Your task to perform on an android device: change your default location settings in chrome Image 0: 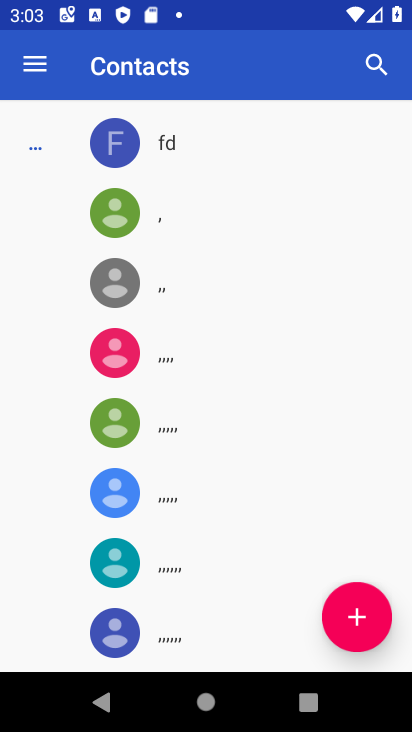
Step 0: press home button
Your task to perform on an android device: change your default location settings in chrome Image 1: 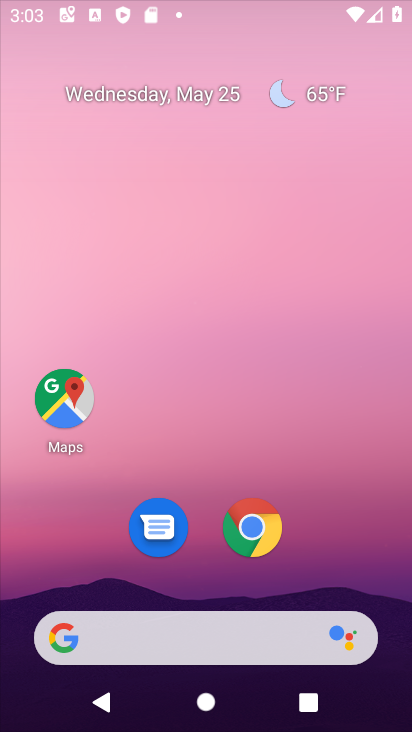
Step 1: drag from (320, 597) to (345, 15)
Your task to perform on an android device: change your default location settings in chrome Image 2: 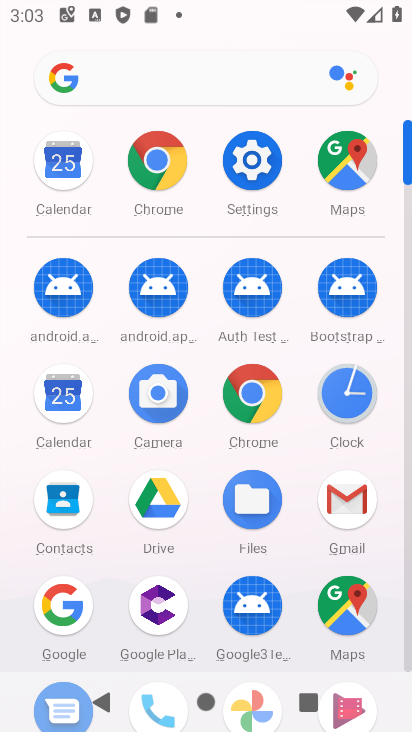
Step 2: click (239, 389)
Your task to perform on an android device: change your default location settings in chrome Image 3: 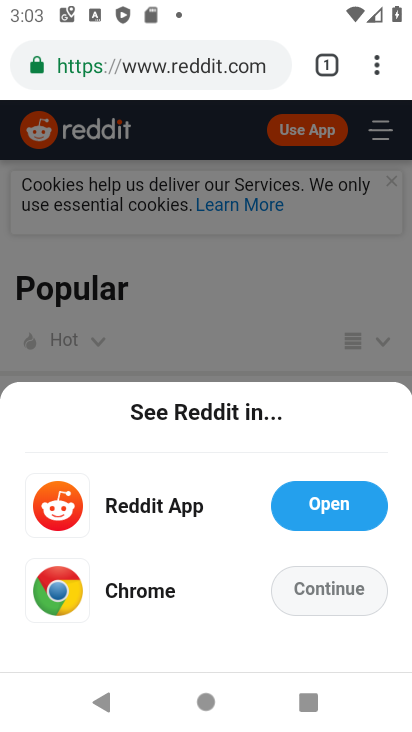
Step 3: click (375, 59)
Your task to perform on an android device: change your default location settings in chrome Image 4: 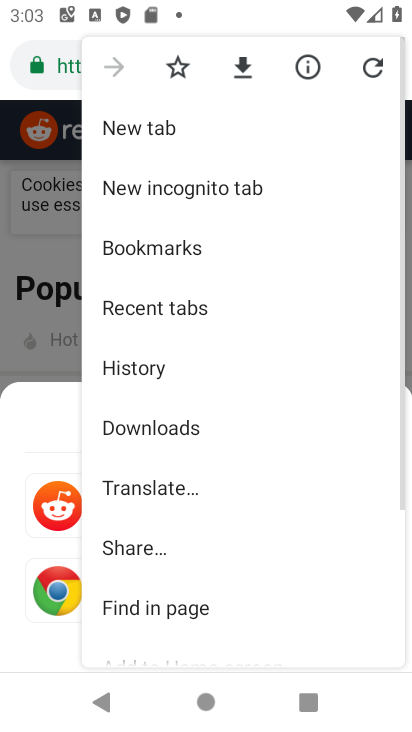
Step 4: drag from (169, 578) to (236, 159)
Your task to perform on an android device: change your default location settings in chrome Image 5: 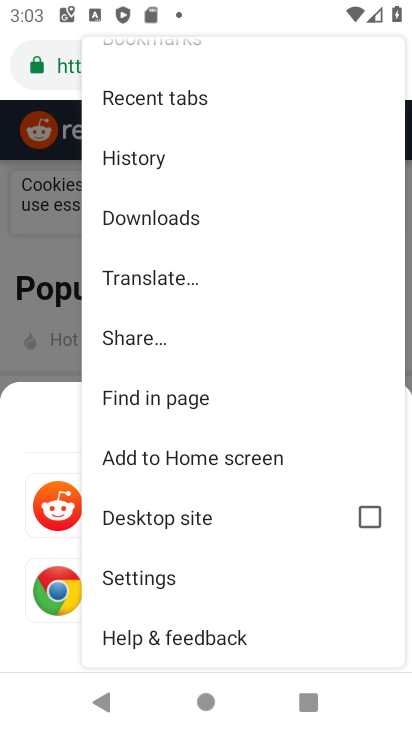
Step 5: click (257, 576)
Your task to perform on an android device: change your default location settings in chrome Image 6: 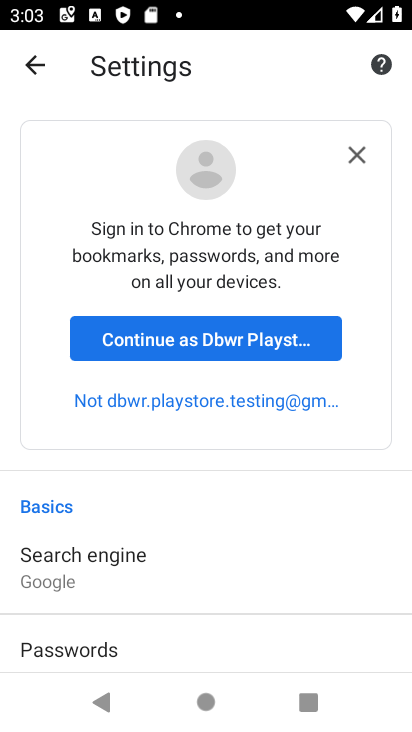
Step 6: drag from (186, 646) to (201, 43)
Your task to perform on an android device: change your default location settings in chrome Image 7: 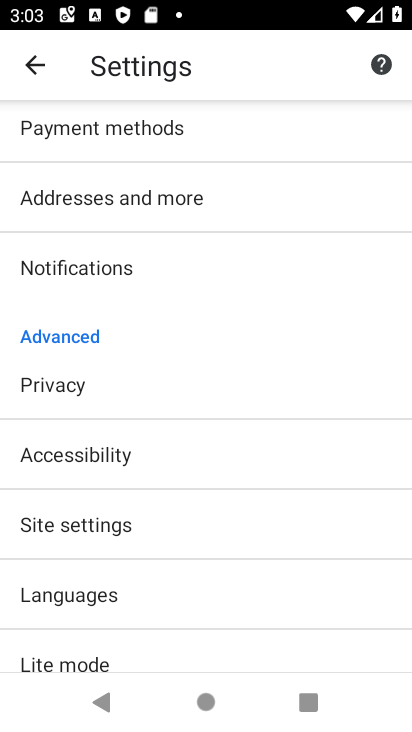
Step 7: drag from (125, 611) to (135, 488)
Your task to perform on an android device: change your default location settings in chrome Image 8: 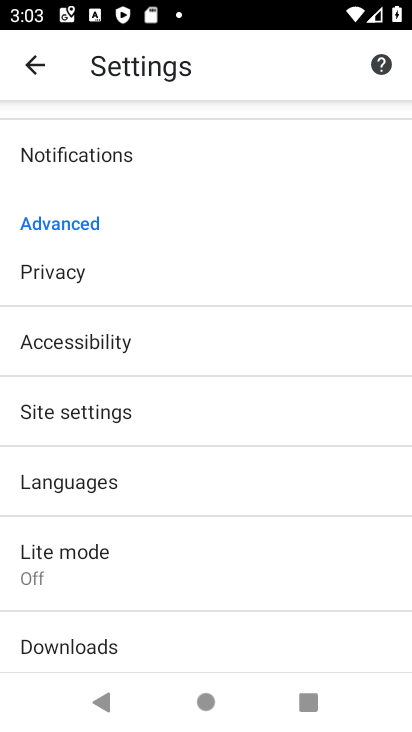
Step 8: click (133, 409)
Your task to perform on an android device: change your default location settings in chrome Image 9: 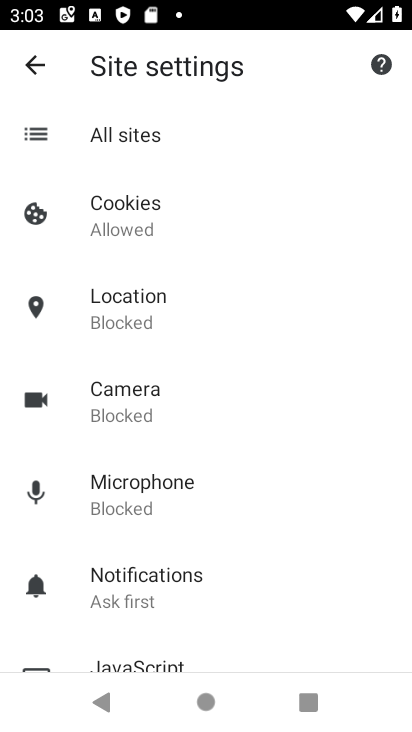
Step 9: click (176, 308)
Your task to perform on an android device: change your default location settings in chrome Image 10: 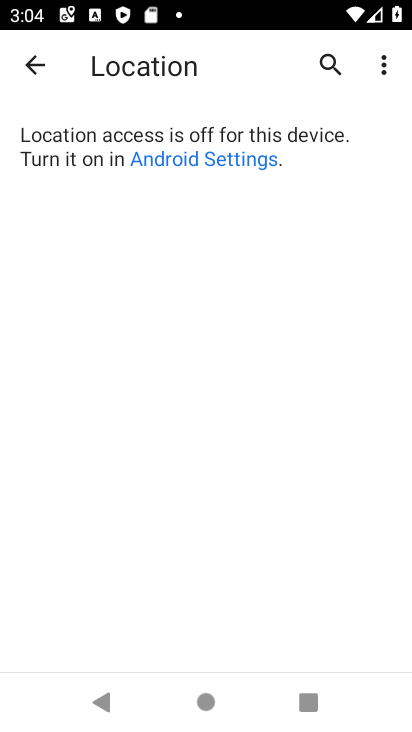
Step 10: task complete